Your task to perform on an android device: Open the calendar app, open the side menu, and click the "Day" option Image 0: 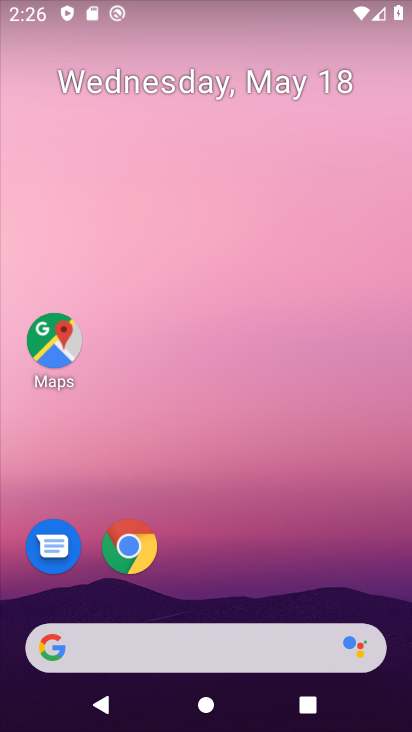
Step 0: drag from (216, 727) to (220, 225)
Your task to perform on an android device: Open the calendar app, open the side menu, and click the "Day" option Image 1: 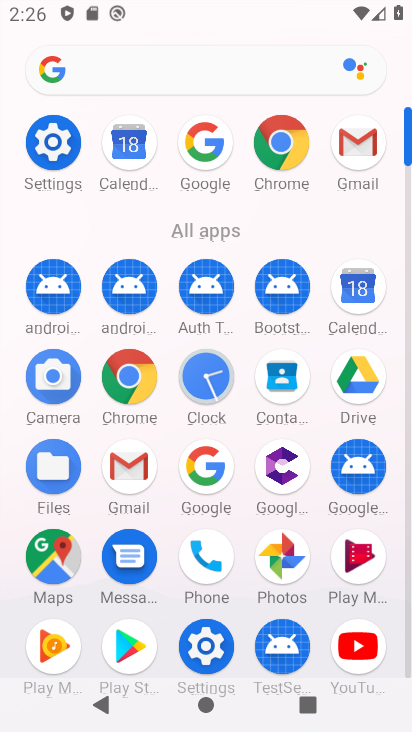
Step 1: click (360, 292)
Your task to perform on an android device: Open the calendar app, open the side menu, and click the "Day" option Image 2: 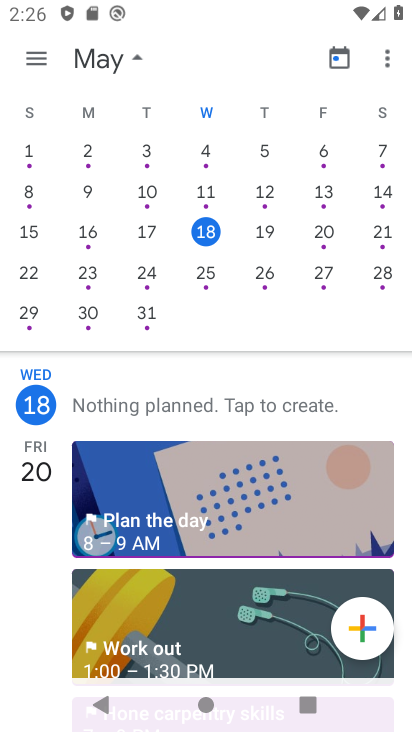
Step 2: click (35, 61)
Your task to perform on an android device: Open the calendar app, open the side menu, and click the "Day" option Image 3: 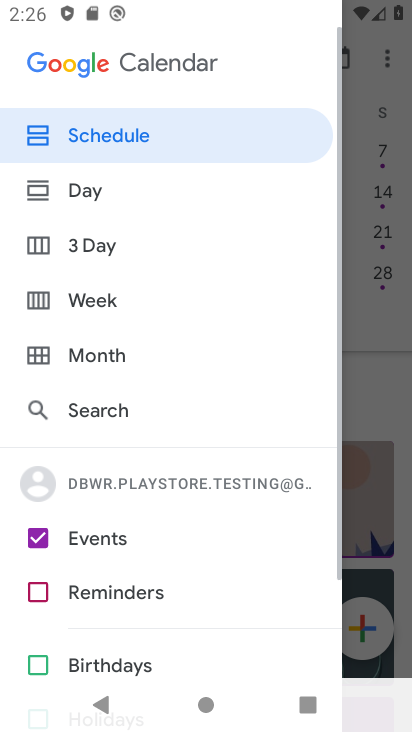
Step 3: click (90, 191)
Your task to perform on an android device: Open the calendar app, open the side menu, and click the "Day" option Image 4: 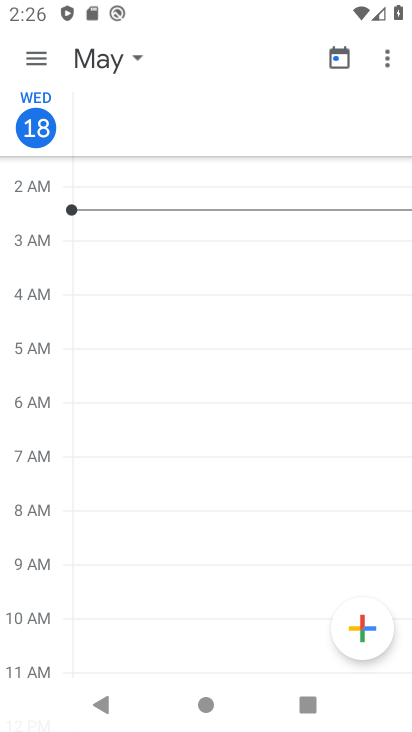
Step 4: task complete